Your task to perform on an android device: Open my contact list Image 0: 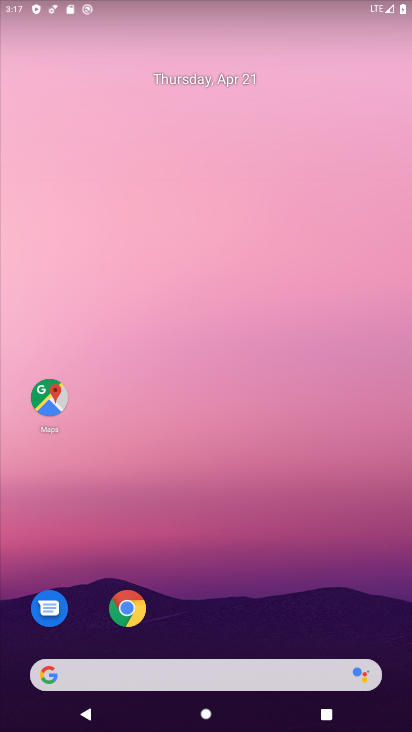
Step 0: drag from (156, 654) to (231, 193)
Your task to perform on an android device: Open my contact list Image 1: 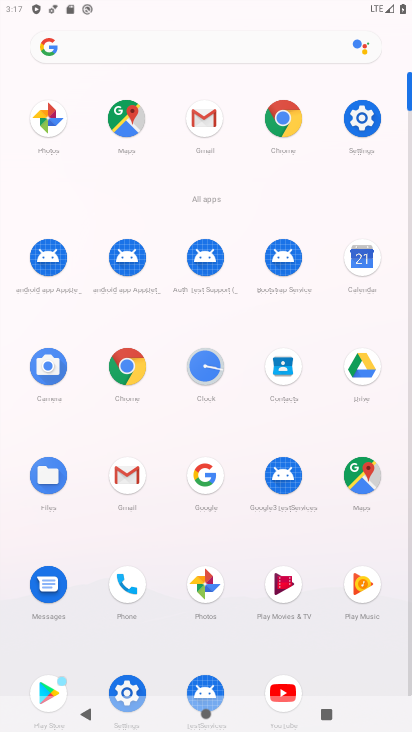
Step 1: click (295, 378)
Your task to perform on an android device: Open my contact list Image 2: 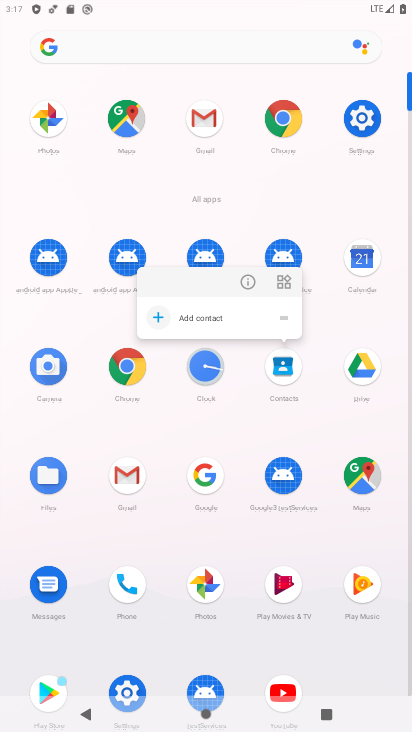
Step 2: click (286, 374)
Your task to perform on an android device: Open my contact list Image 3: 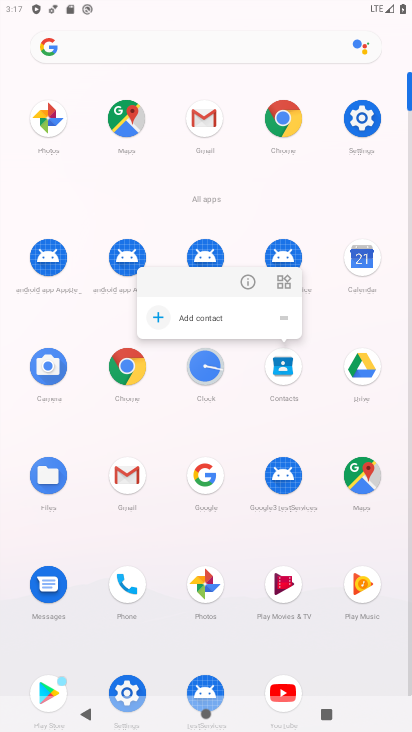
Step 3: click (281, 375)
Your task to perform on an android device: Open my contact list Image 4: 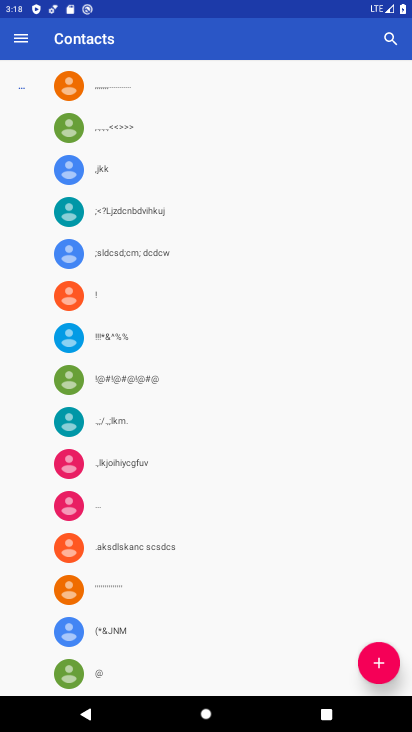
Step 4: task complete